Your task to perform on an android device: Open Yahoo.com Image 0: 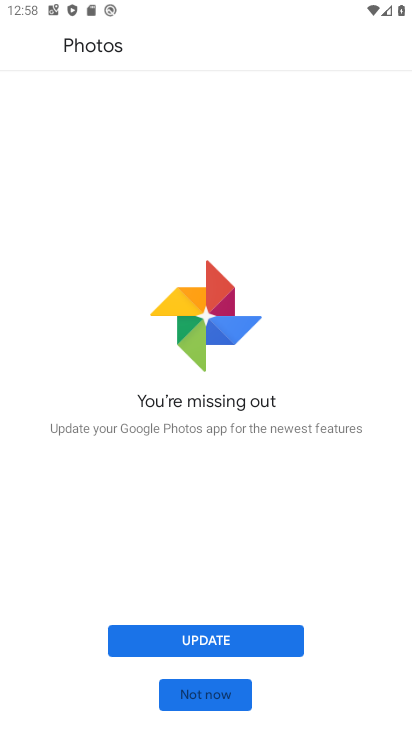
Step 0: press home button
Your task to perform on an android device: Open Yahoo.com Image 1: 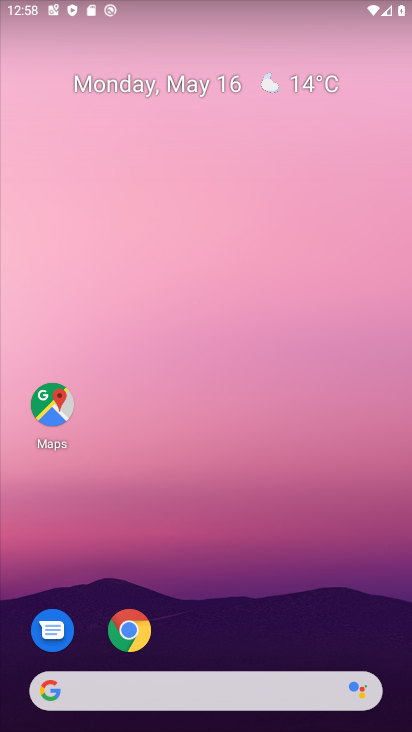
Step 1: click (143, 628)
Your task to perform on an android device: Open Yahoo.com Image 2: 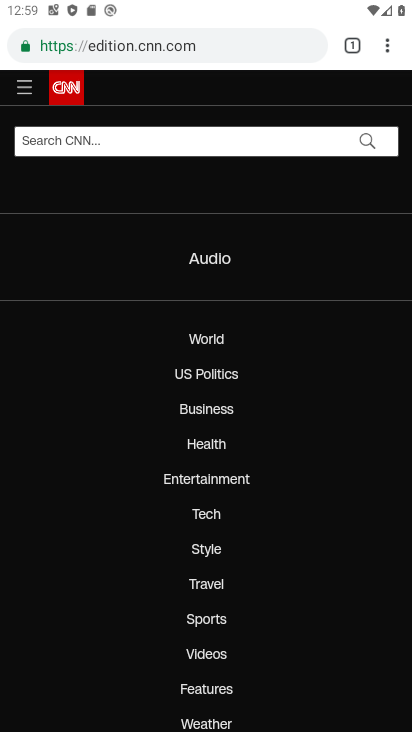
Step 2: click (350, 47)
Your task to perform on an android device: Open Yahoo.com Image 3: 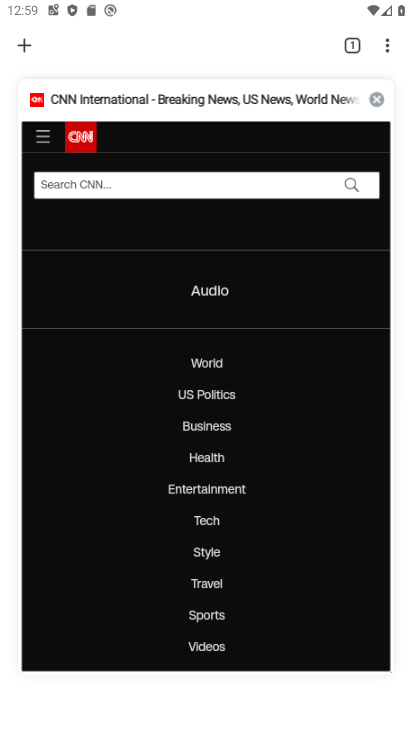
Step 3: click (385, 101)
Your task to perform on an android device: Open Yahoo.com Image 4: 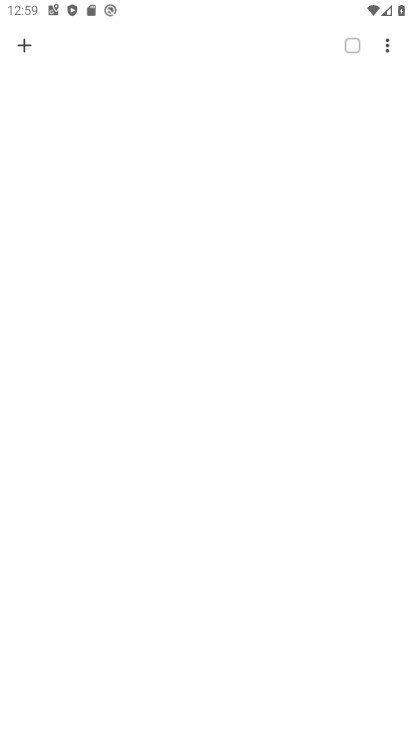
Step 4: click (22, 47)
Your task to perform on an android device: Open Yahoo.com Image 5: 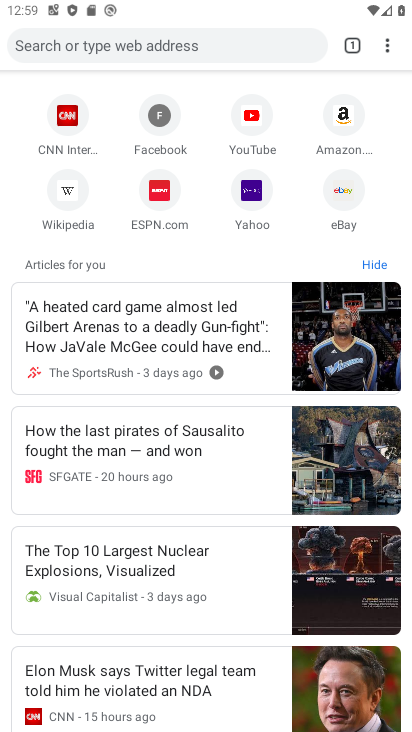
Step 5: click (270, 188)
Your task to perform on an android device: Open Yahoo.com Image 6: 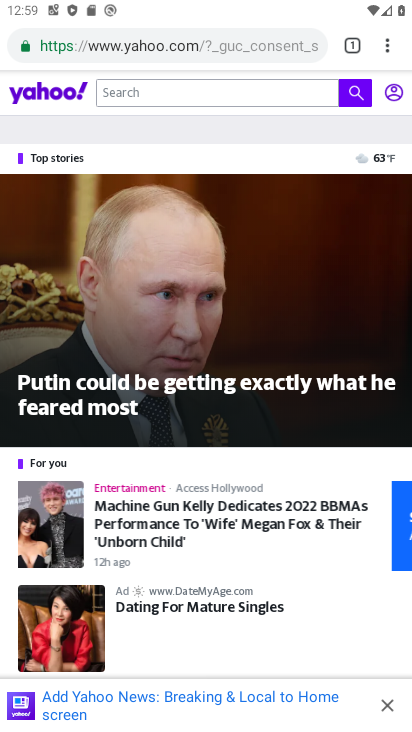
Step 6: task complete